Your task to perform on an android device: toggle pop-ups in chrome Image 0: 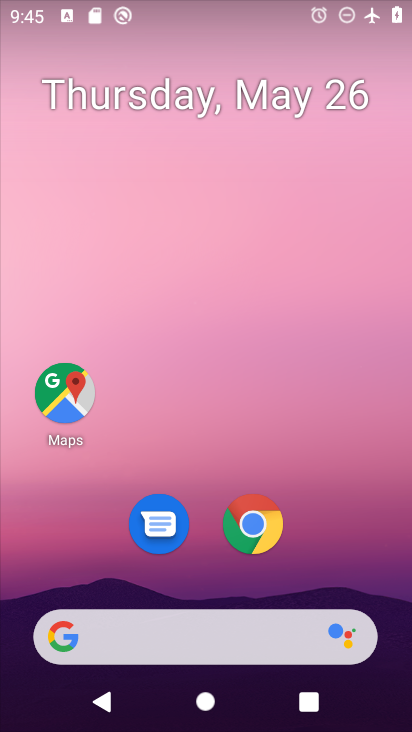
Step 0: click (260, 523)
Your task to perform on an android device: toggle pop-ups in chrome Image 1: 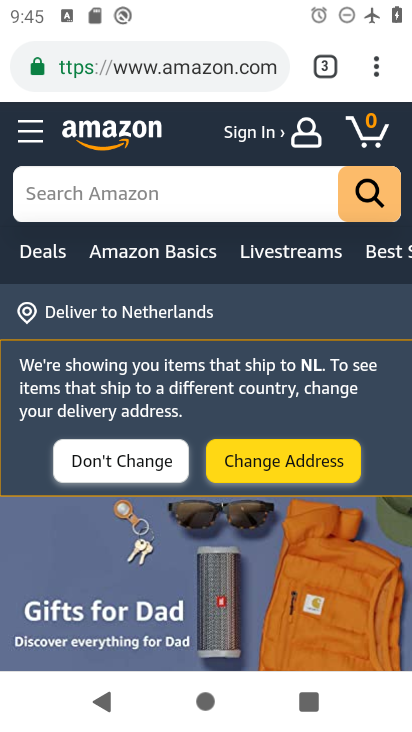
Step 1: click (376, 63)
Your task to perform on an android device: toggle pop-ups in chrome Image 2: 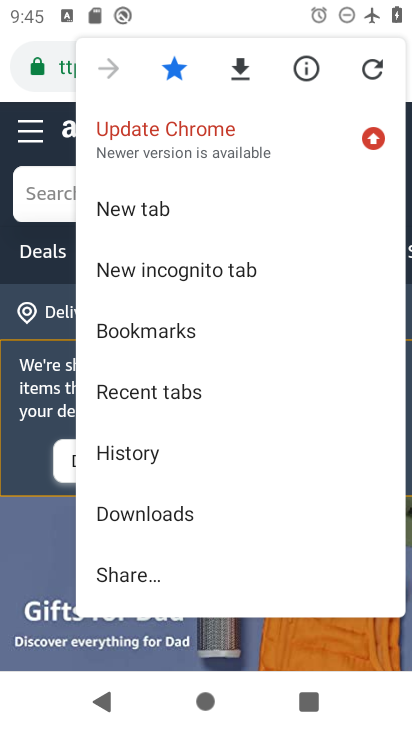
Step 2: drag from (221, 497) to (279, 141)
Your task to perform on an android device: toggle pop-ups in chrome Image 3: 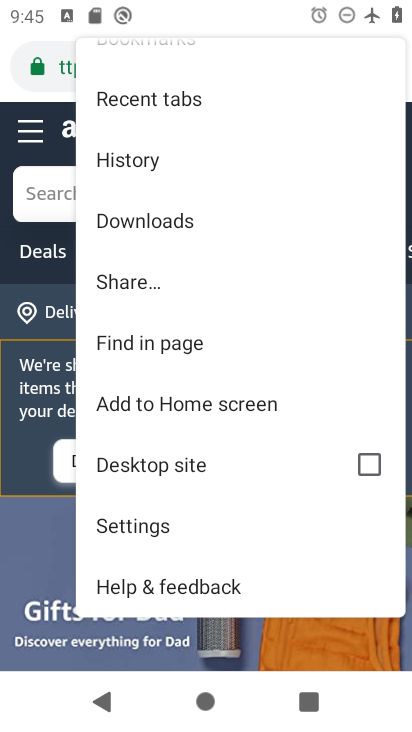
Step 3: click (170, 525)
Your task to perform on an android device: toggle pop-ups in chrome Image 4: 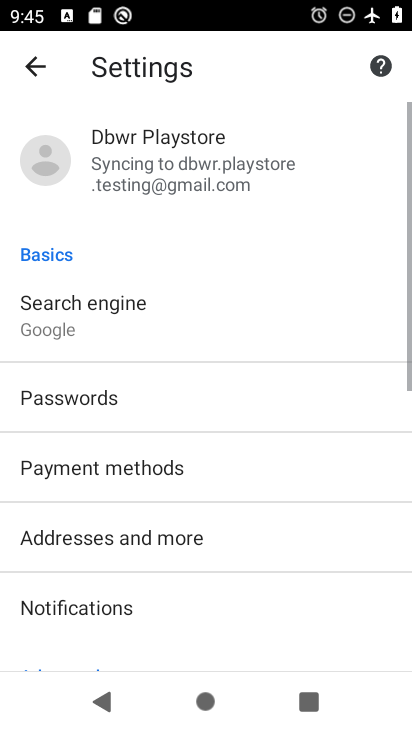
Step 4: drag from (242, 526) to (270, 125)
Your task to perform on an android device: toggle pop-ups in chrome Image 5: 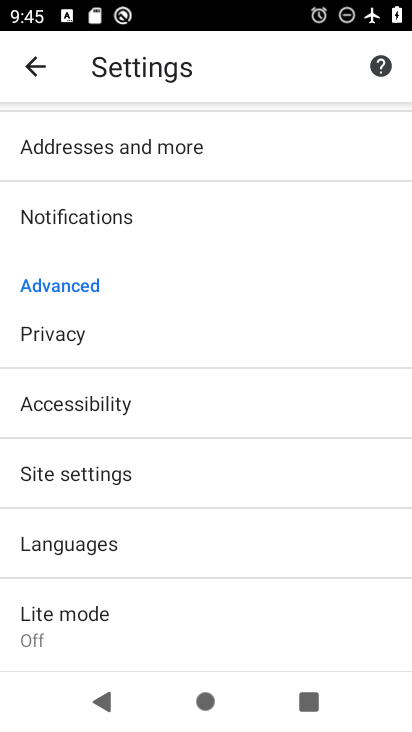
Step 5: click (189, 468)
Your task to perform on an android device: toggle pop-ups in chrome Image 6: 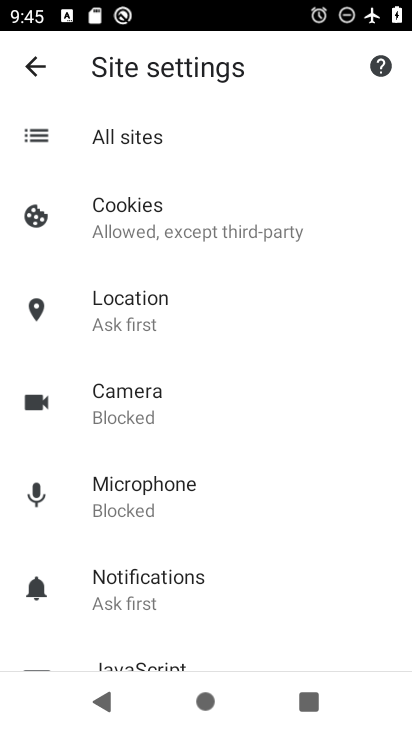
Step 6: drag from (237, 555) to (260, 184)
Your task to perform on an android device: toggle pop-ups in chrome Image 7: 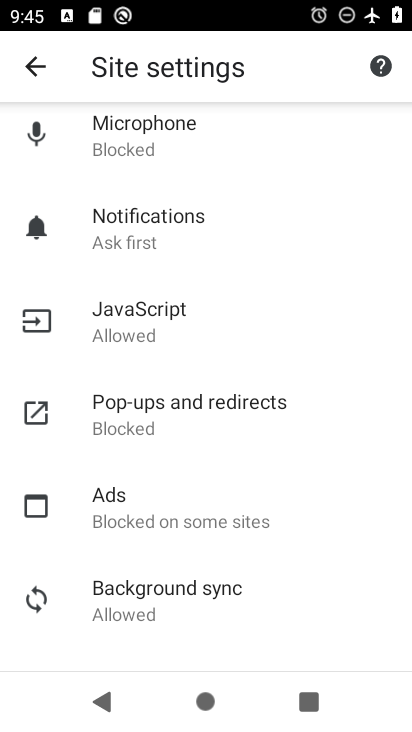
Step 7: click (225, 405)
Your task to perform on an android device: toggle pop-ups in chrome Image 8: 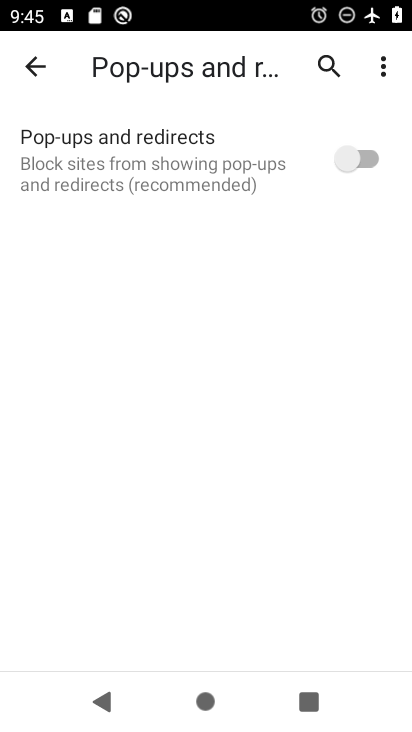
Step 8: click (357, 143)
Your task to perform on an android device: toggle pop-ups in chrome Image 9: 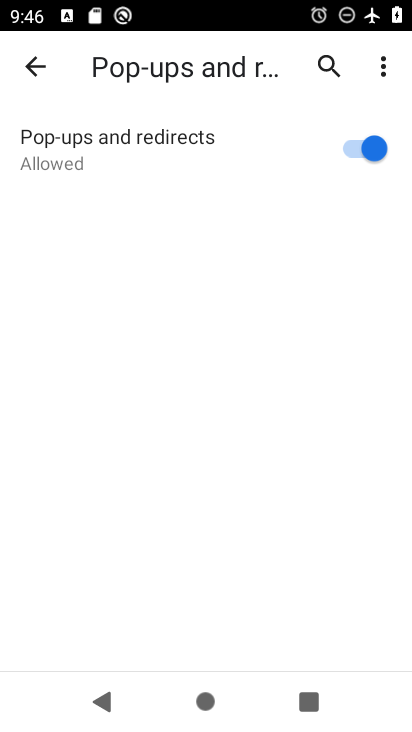
Step 9: task complete